Your task to perform on an android device: delete browsing data in the chrome app Image 0: 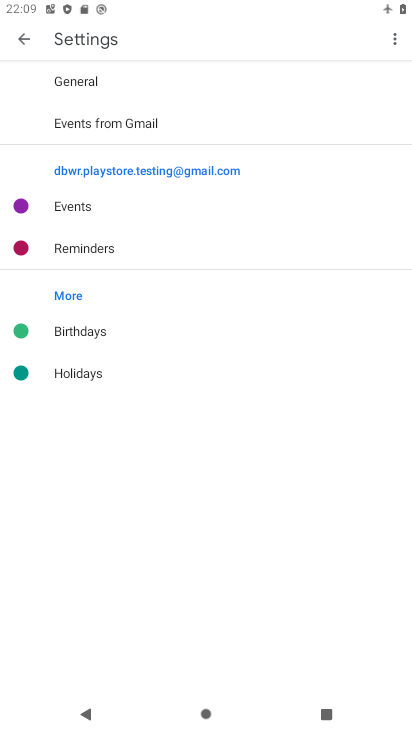
Step 0: press home button
Your task to perform on an android device: delete browsing data in the chrome app Image 1: 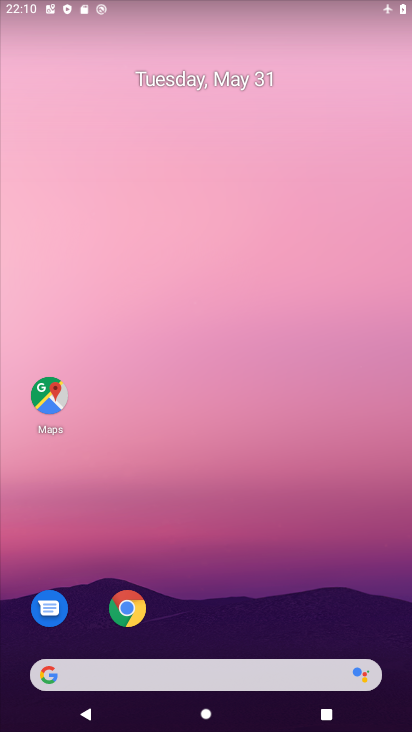
Step 1: click (126, 615)
Your task to perform on an android device: delete browsing data in the chrome app Image 2: 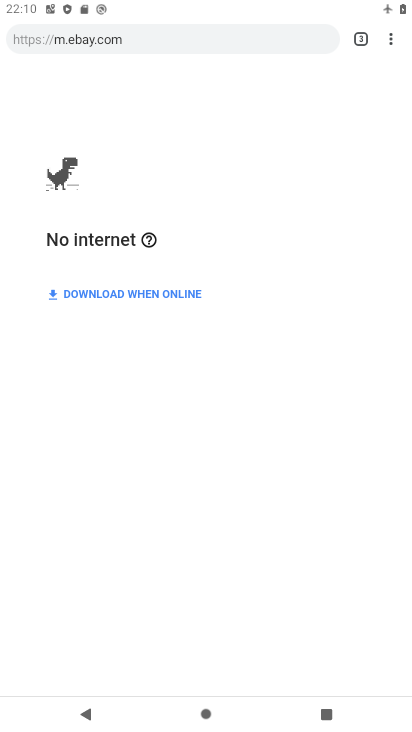
Step 2: click (394, 38)
Your task to perform on an android device: delete browsing data in the chrome app Image 3: 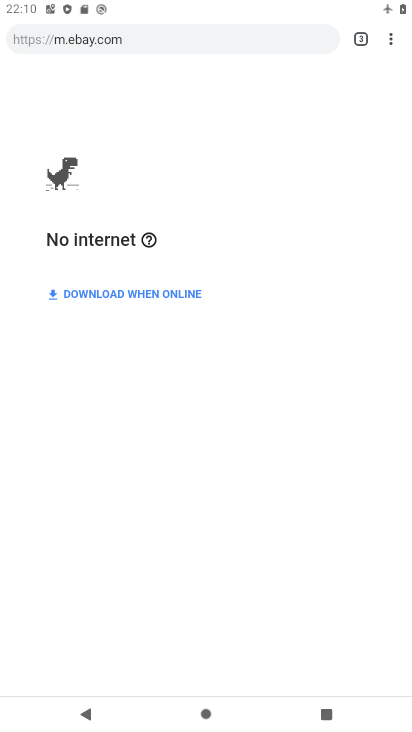
Step 3: drag from (386, 37) to (276, 268)
Your task to perform on an android device: delete browsing data in the chrome app Image 4: 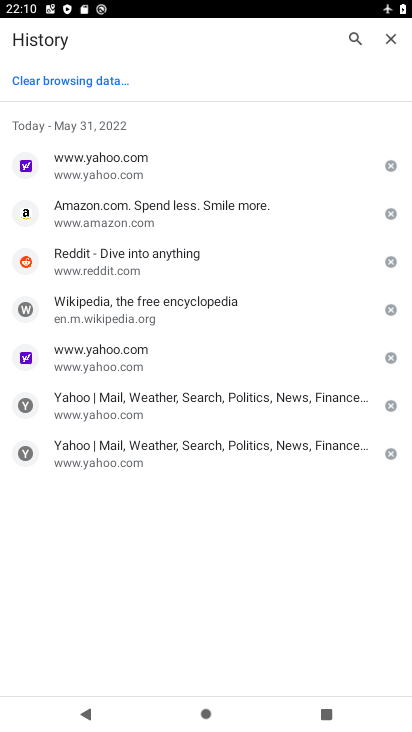
Step 4: click (88, 76)
Your task to perform on an android device: delete browsing data in the chrome app Image 5: 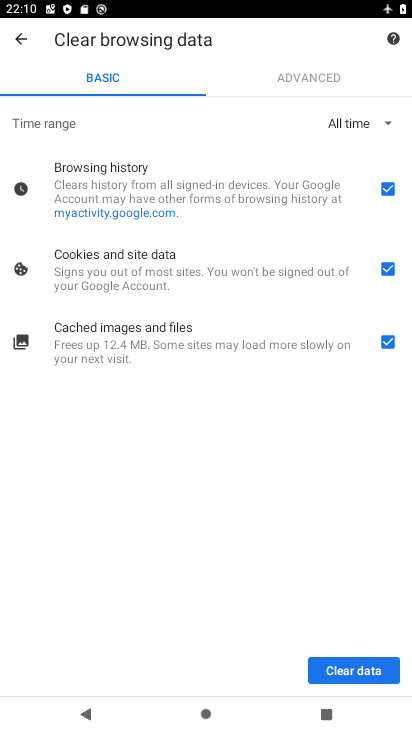
Step 5: click (338, 671)
Your task to perform on an android device: delete browsing data in the chrome app Image 6: 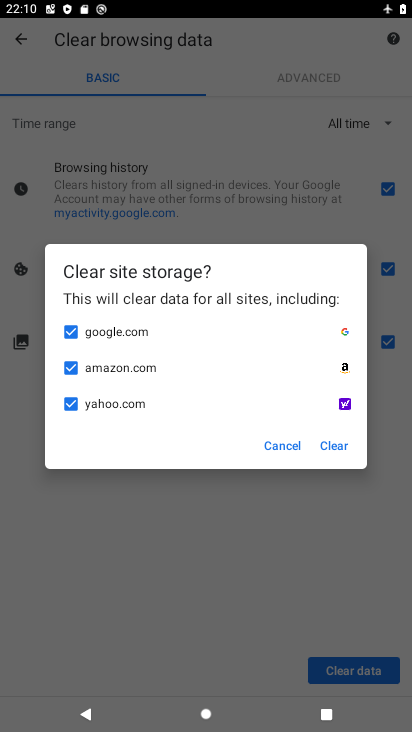
Step 6: click (331, 448)
Your task to perform on an android device: delete browsing data in the chrome app Image 7: 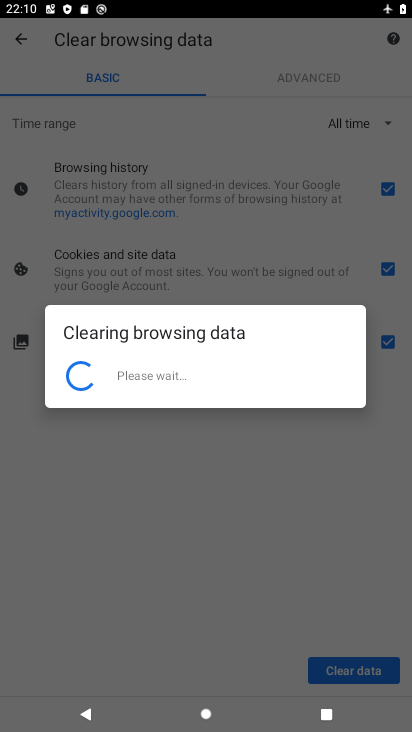
Step 7: task complete